Your task to perform on an android device: Add razer naga to the cart on ebay Image 0: 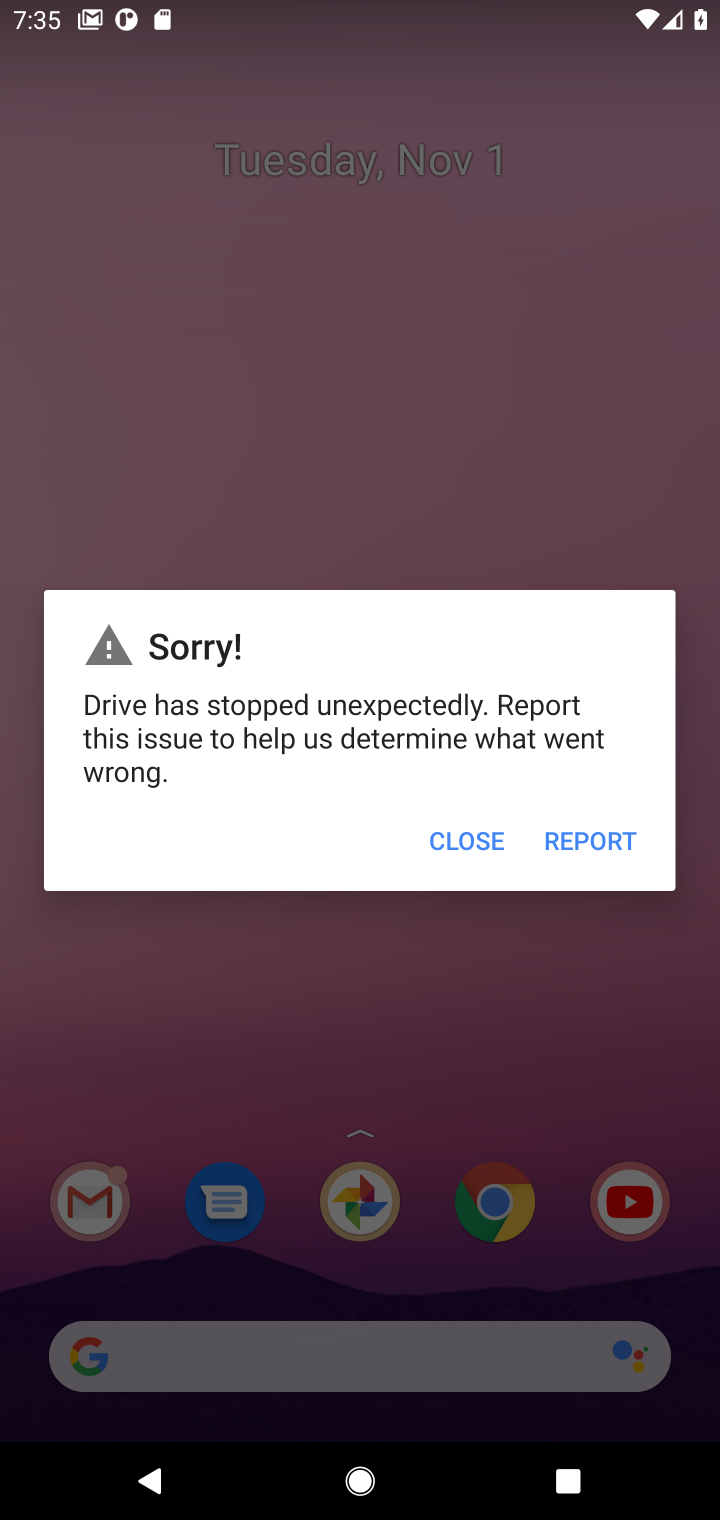
Step 0: click (474, 826)
Your task to perform on an android device: Add razer naga to the cart on ebay Image 1: 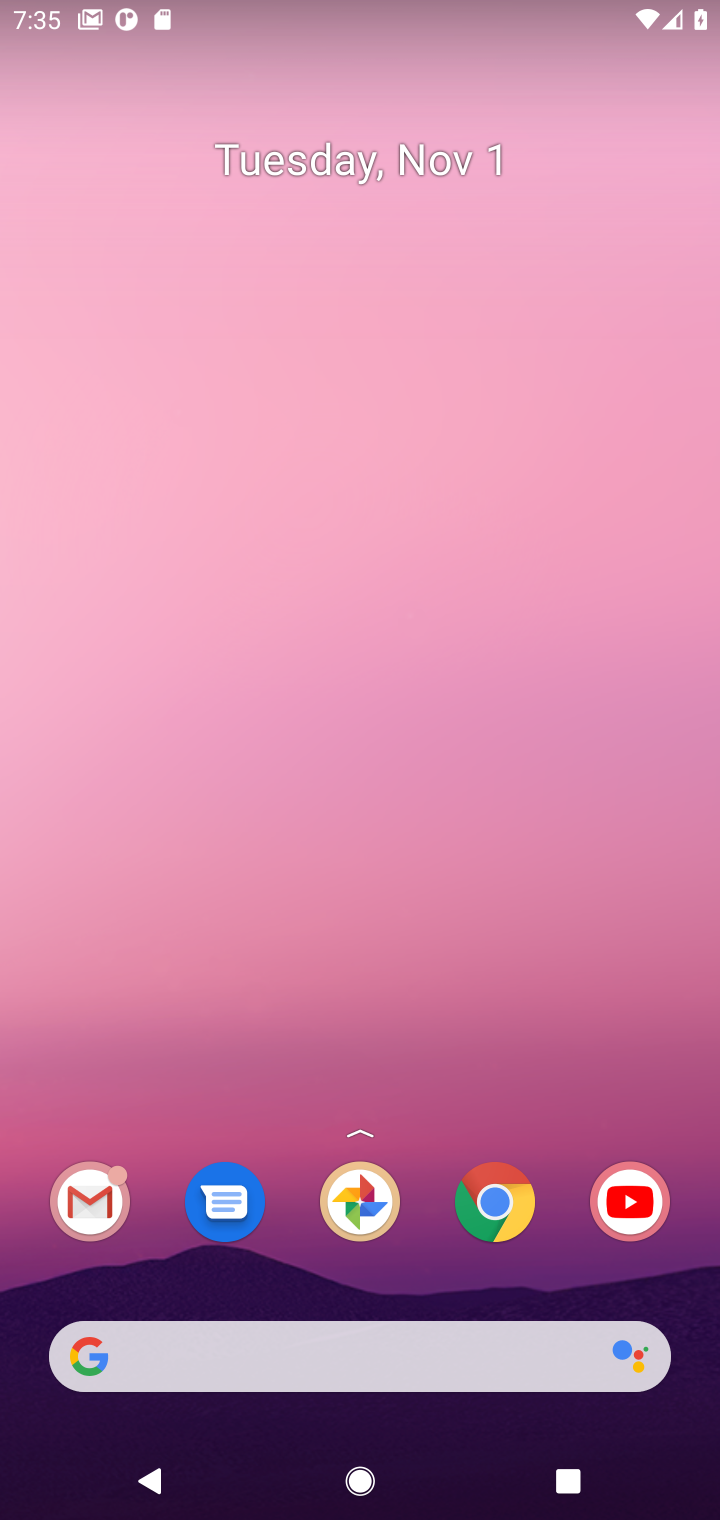
Step 1: drag from (461, 1435) to (391, 157)
Your task to perform on an android device: Add razer naga to the cart on ebay Image 2: 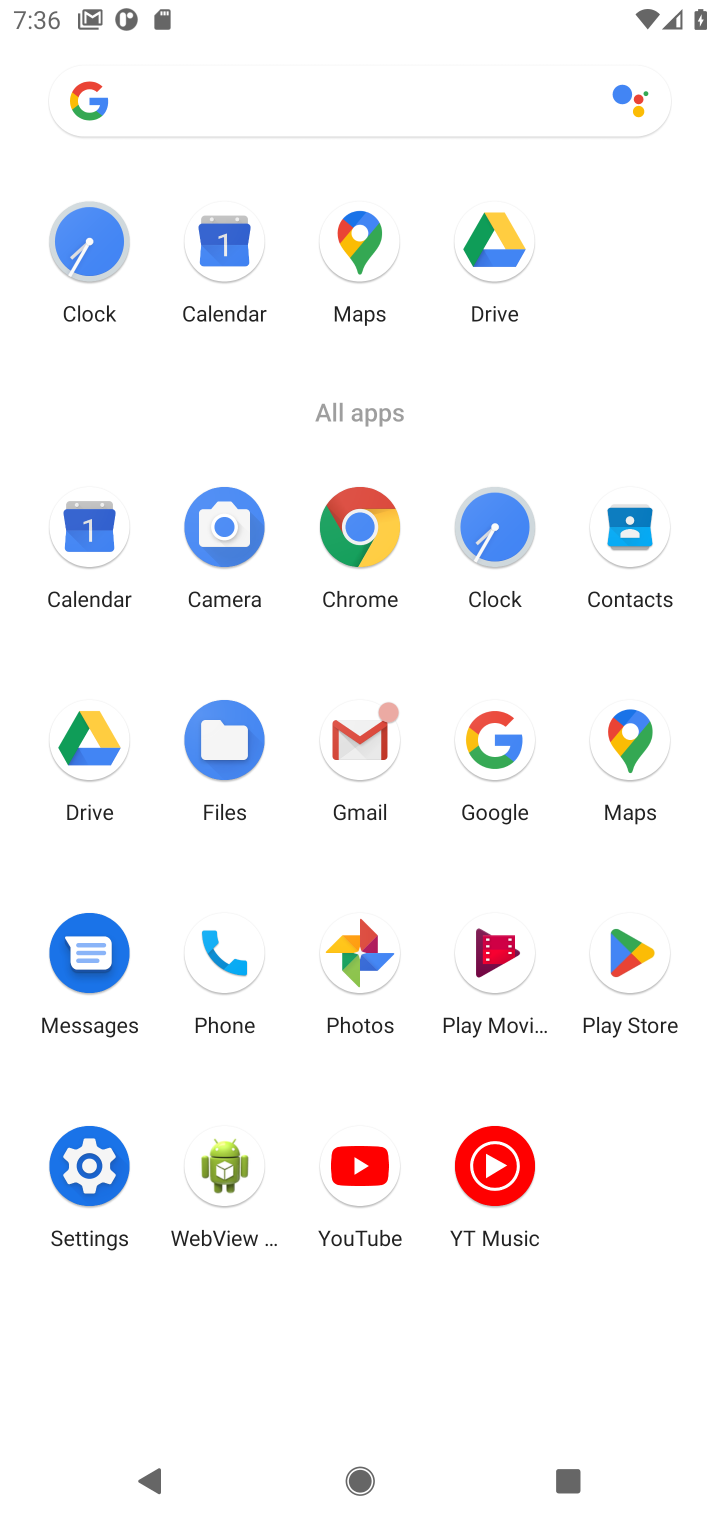
Step 2: click (360, 535)
Your task to perform on an android device: Add razer naga to the cart on ebay Image 3: 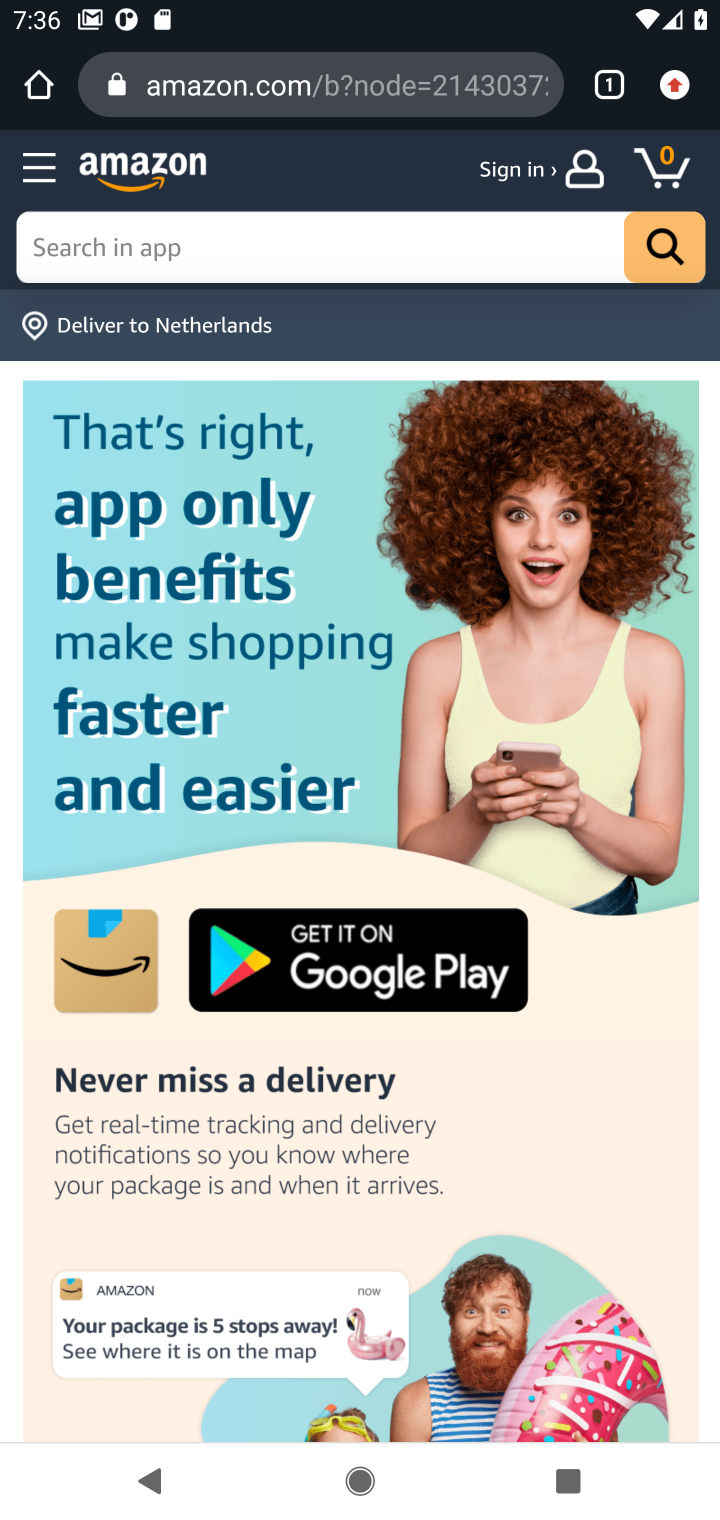
Step 3: click (305, 77)
Your task to perform on an android device: Add razer naga to the cart on ebay Image 4: 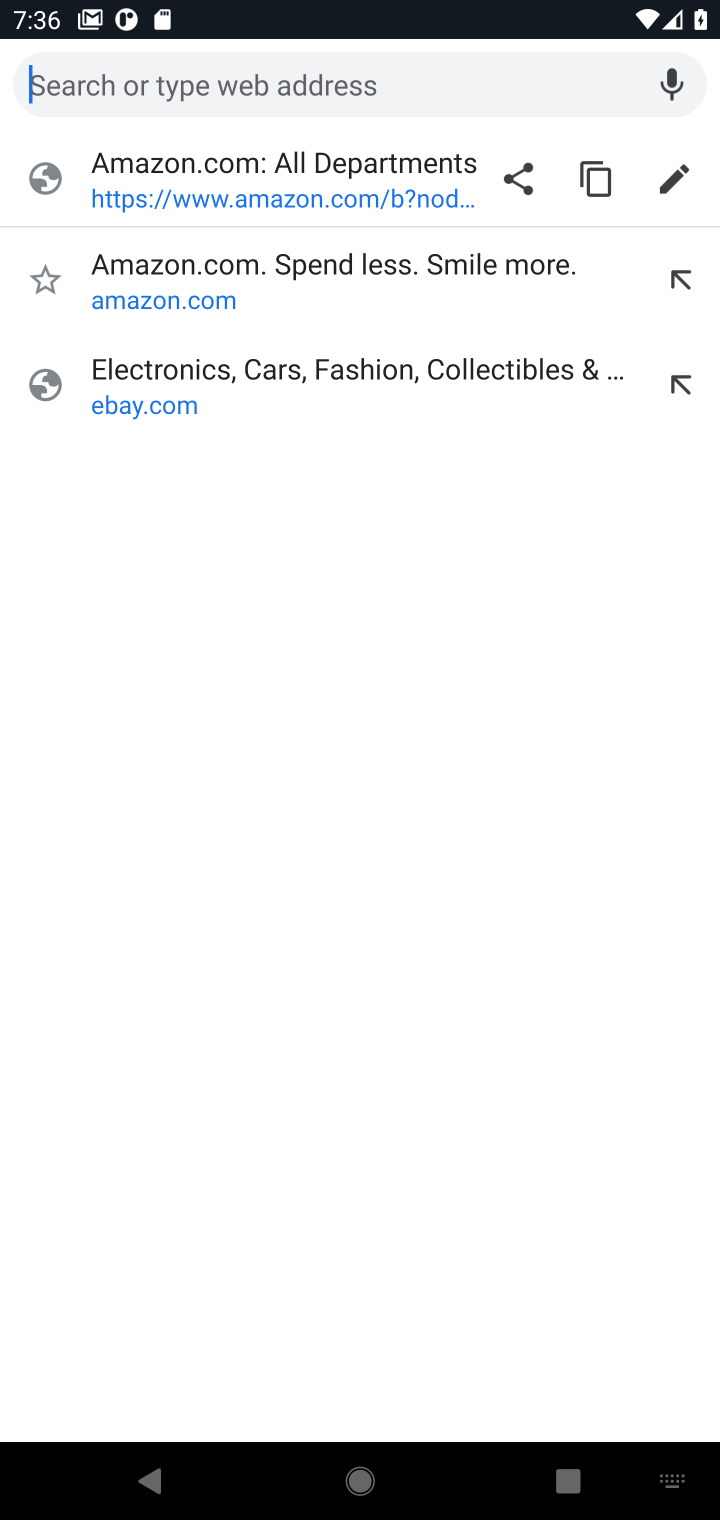
Step 4: type "ebay"
Your task to perform on an android device: Add razer naga to the cart on ebay Image 5: 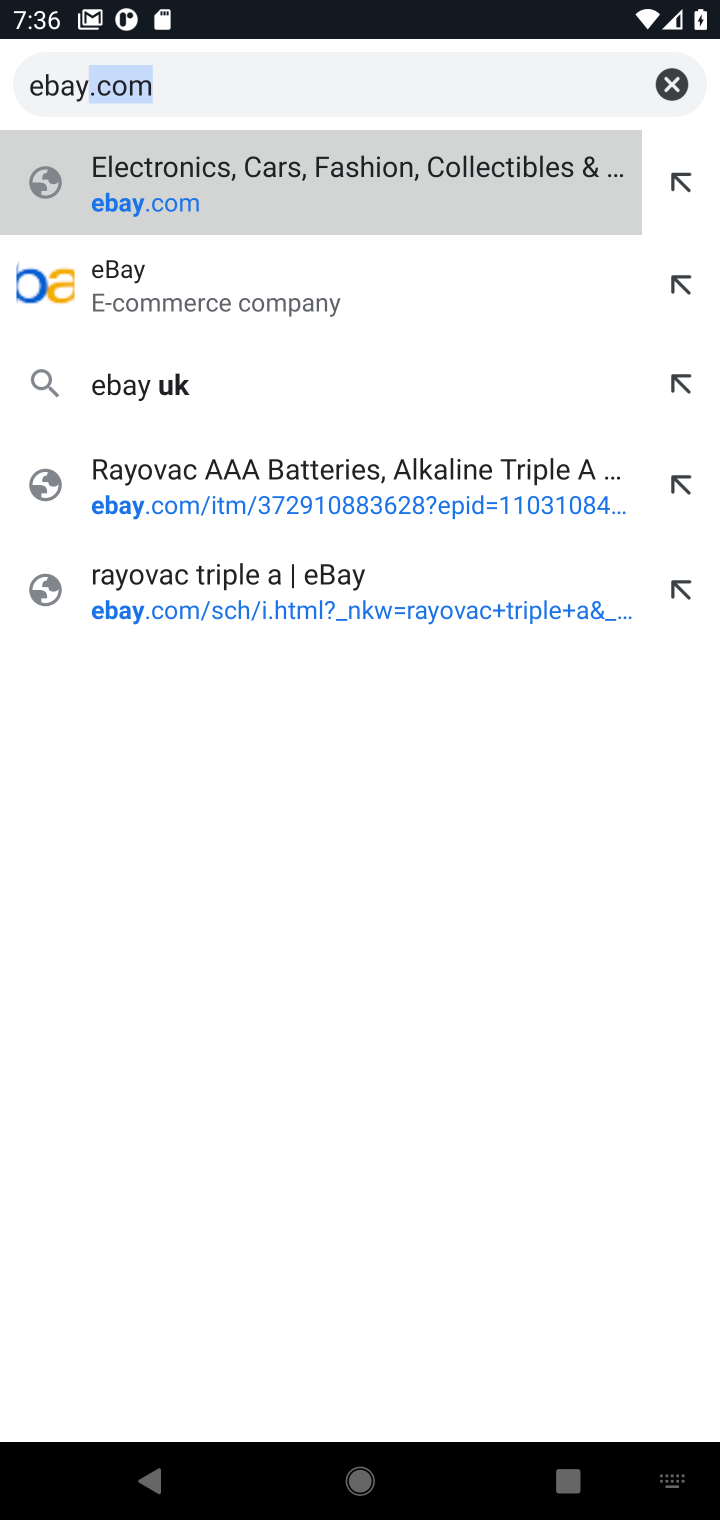
Step 5: click (170, 195)
Your task to perform on an android device: Add razer naga to the cart on ebay Image 6: 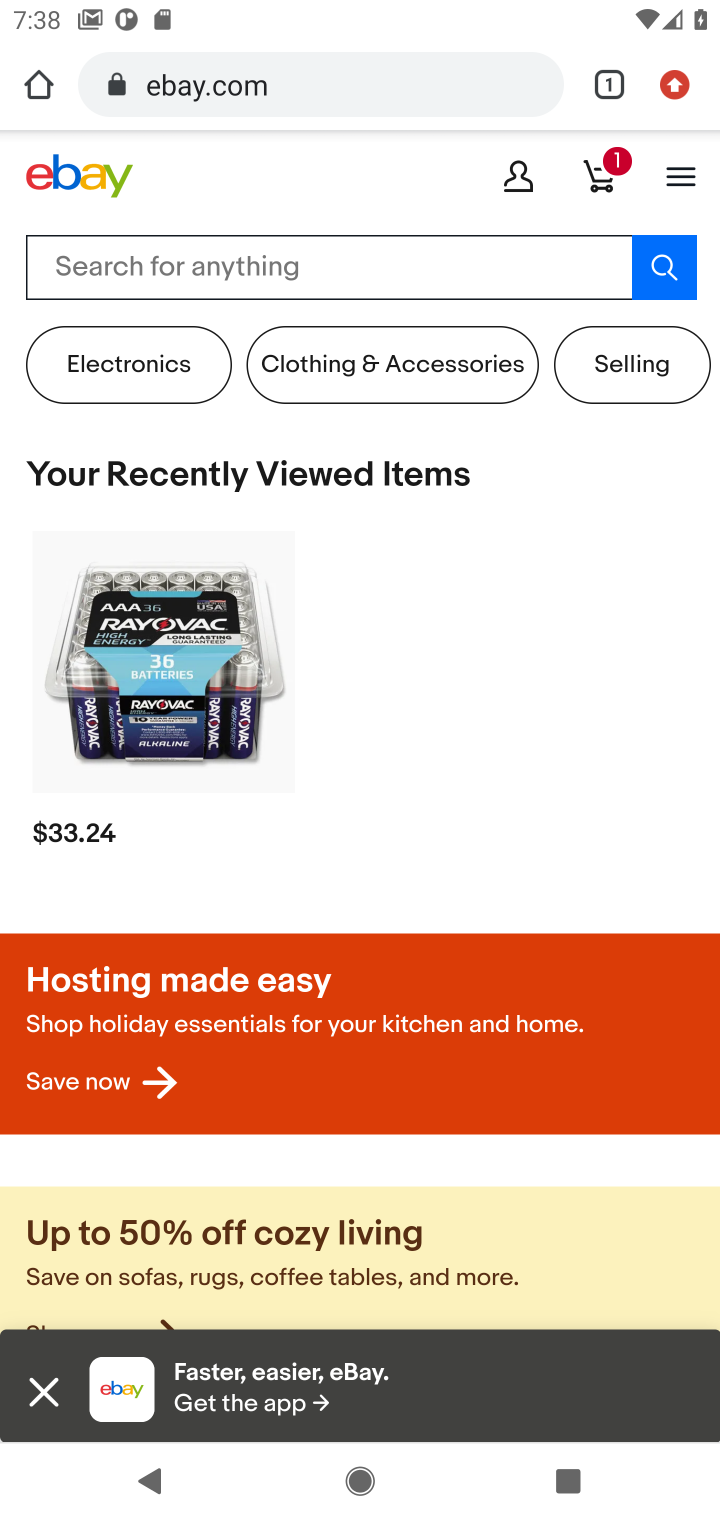
Step 6: click (333, 261)
Your task to perform on an android device: Add razer naga to the cart on ebay Image 7: 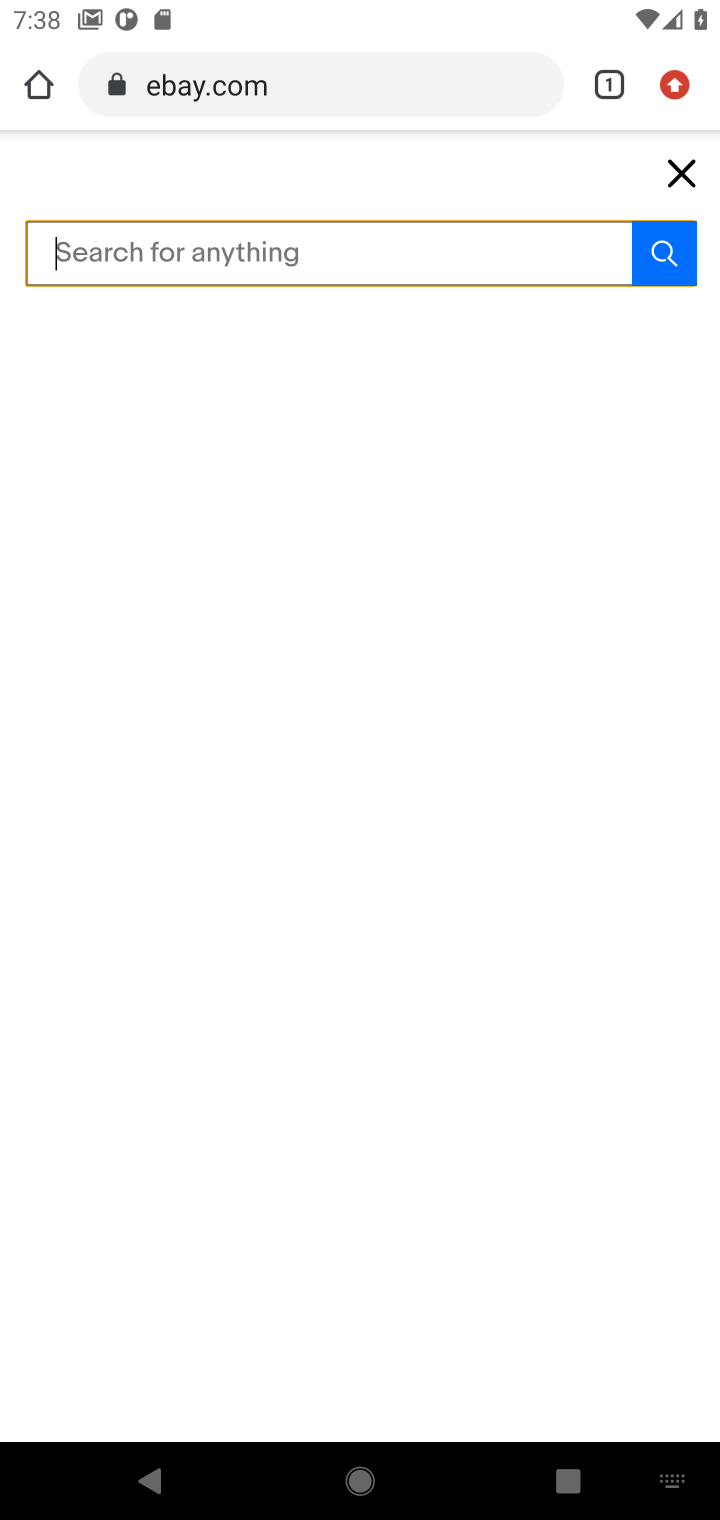
Step 7: type " razer naga"
Your task to perform on an android device: Add razer naga to the cart on ebay Image 8: 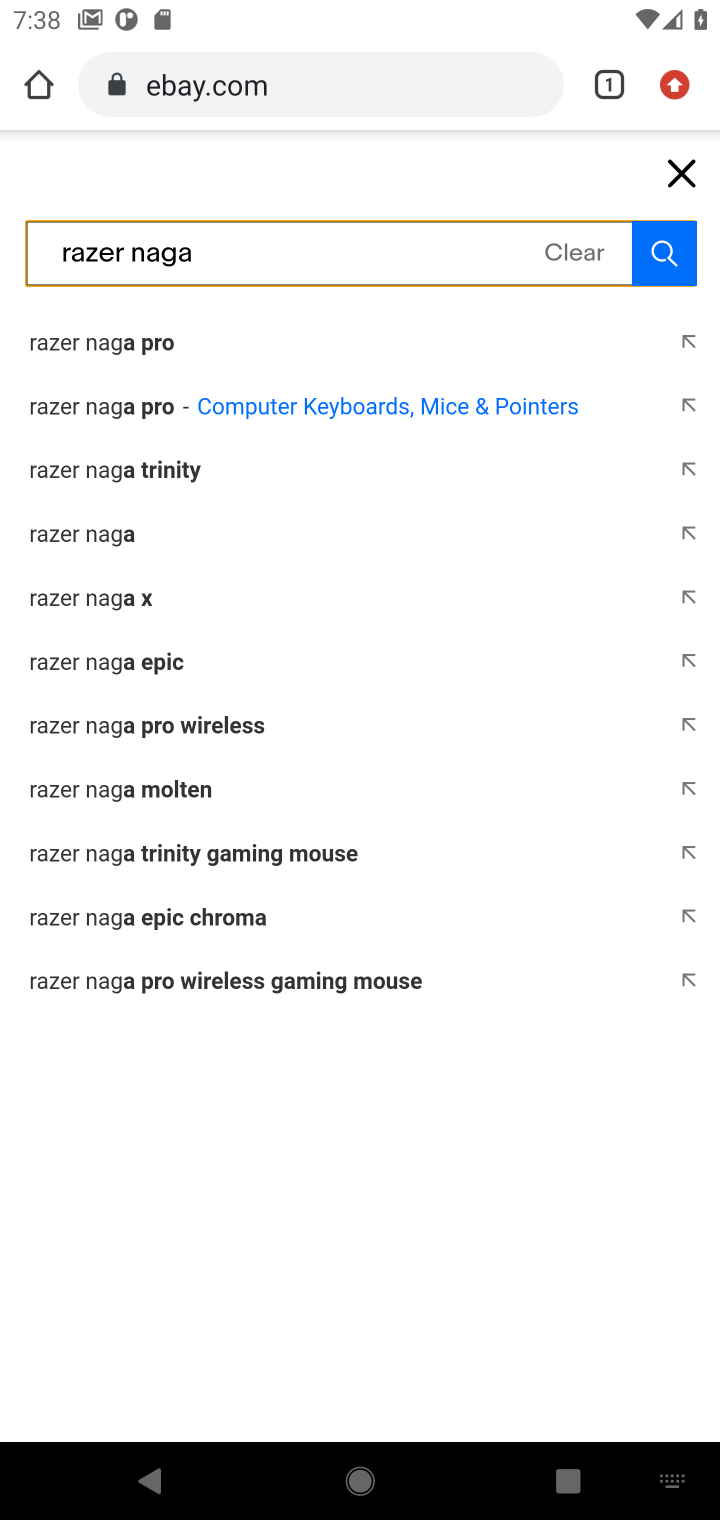
Step 8: click (674, 248)
Your task to perform on an android device: Add razer naga to the cart on ebay Image 9: 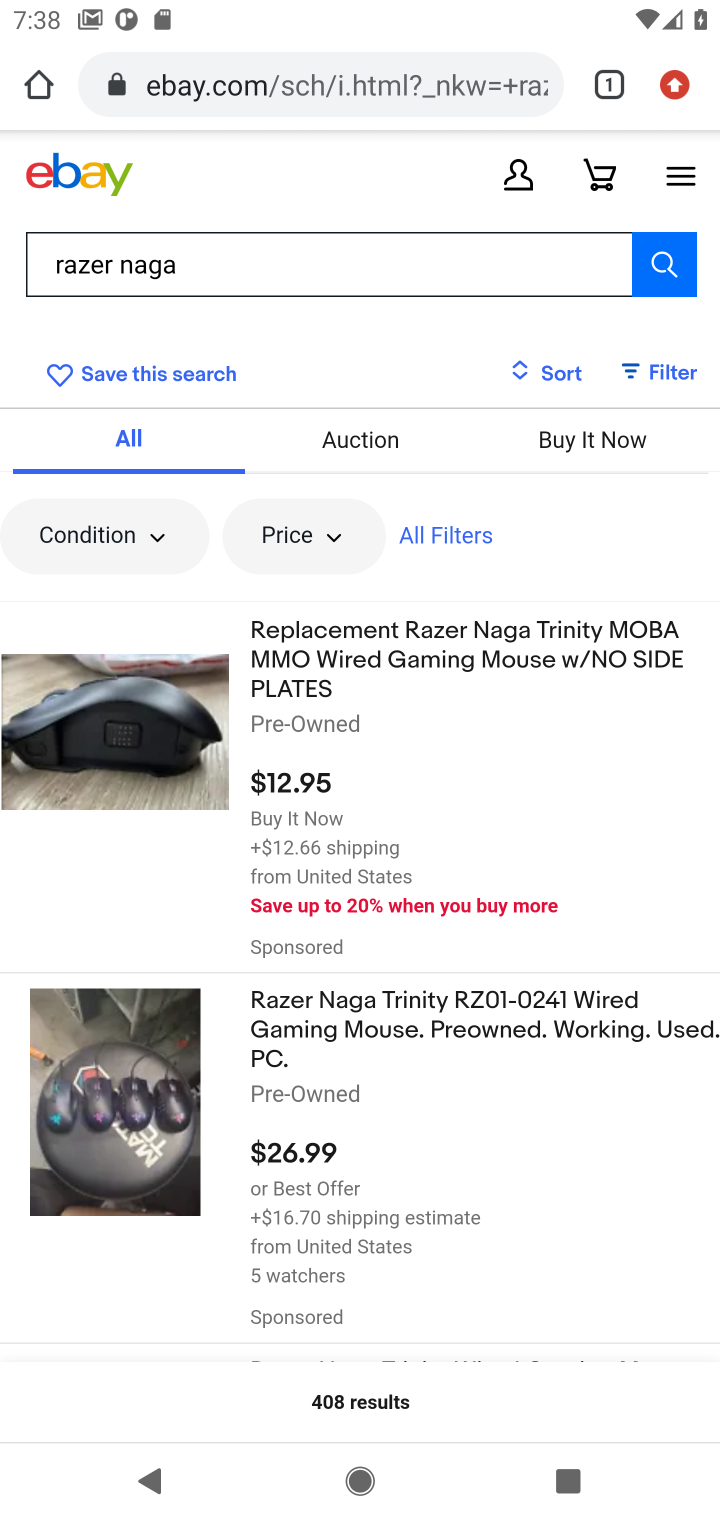
Step 9: click (91, 657)
Your task to perform on an android device: Add razer naga to the cart on ebay Image 10: 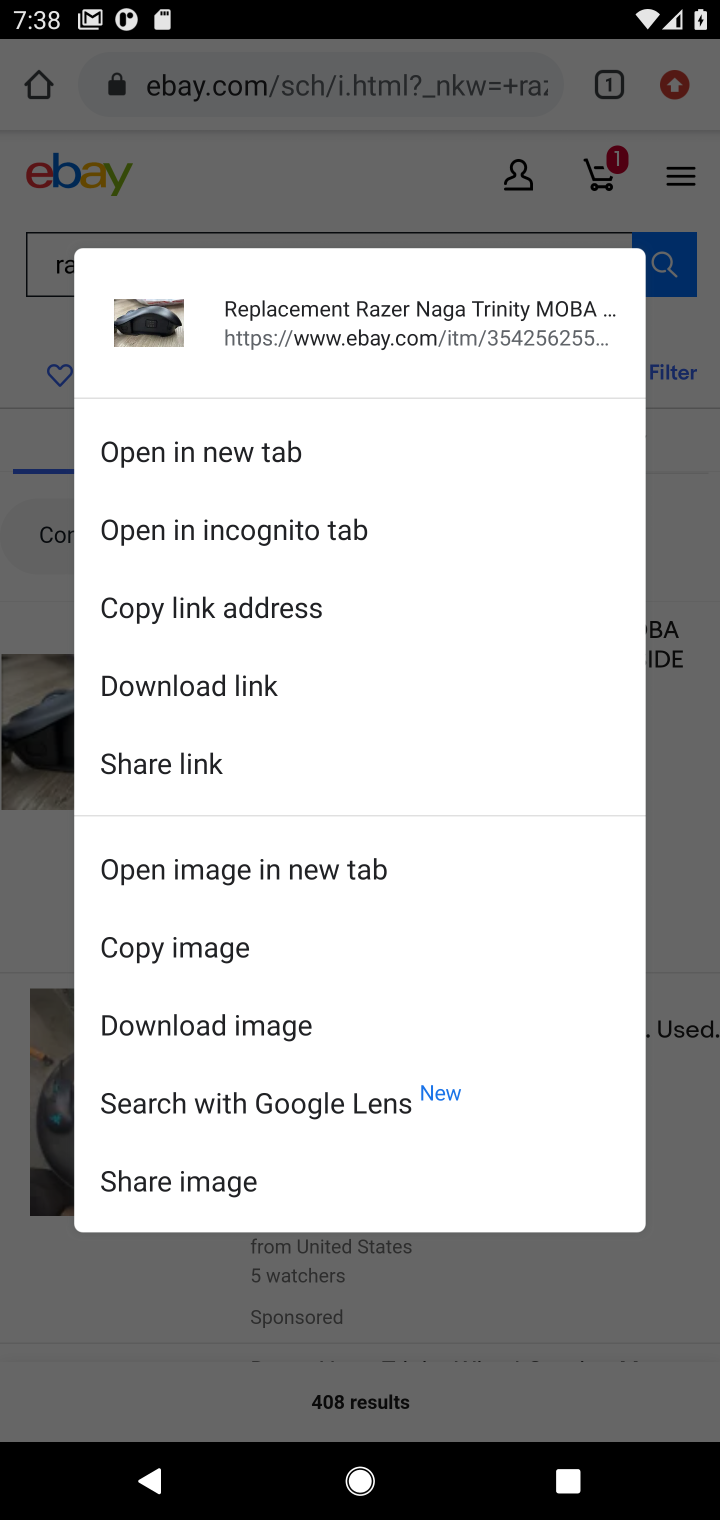
Step 10: click (676, 444)
Your task to perform on an android device: Add razer naga to the cart on ebay Image 11: 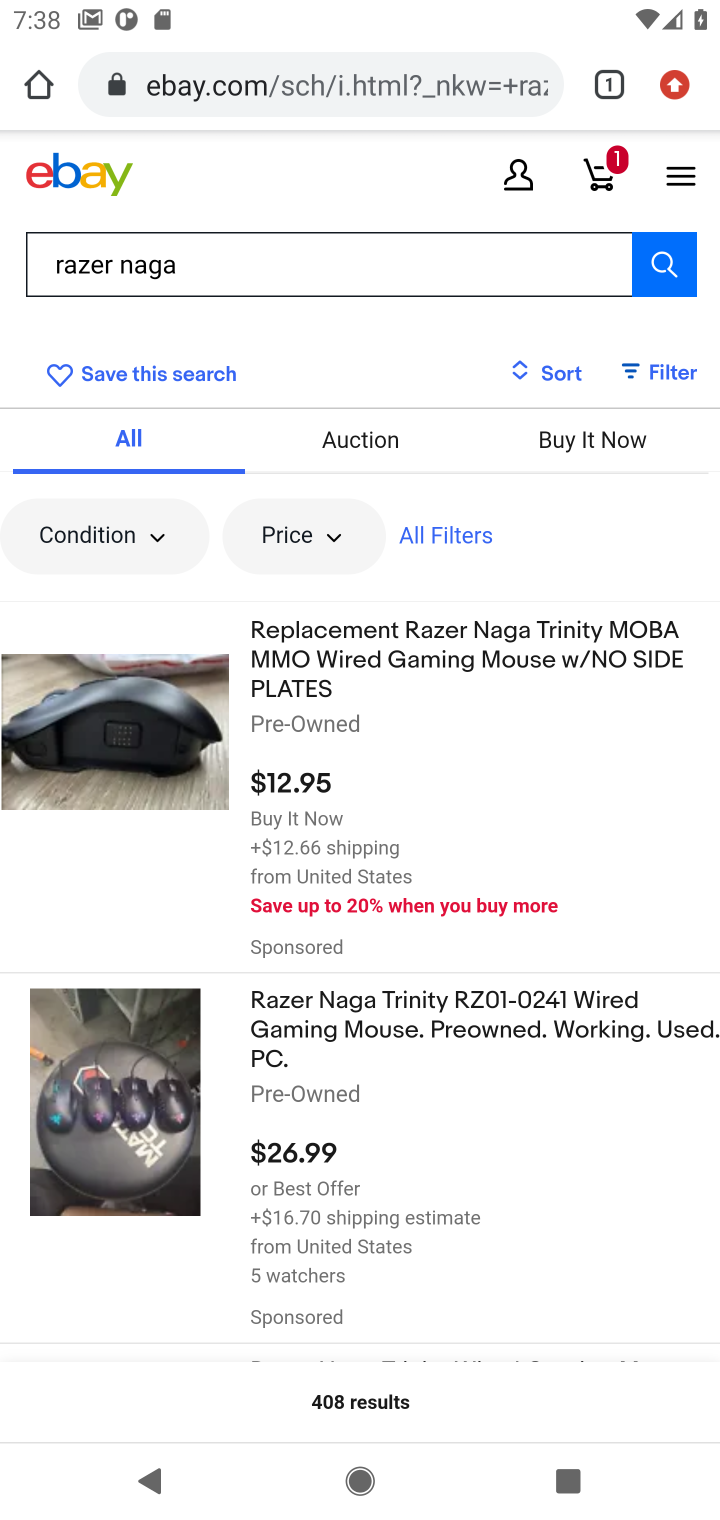
Step 11: click (304, 699)
Your task to perform on an android device: Add razer naga to the cart on ebay Image 12: 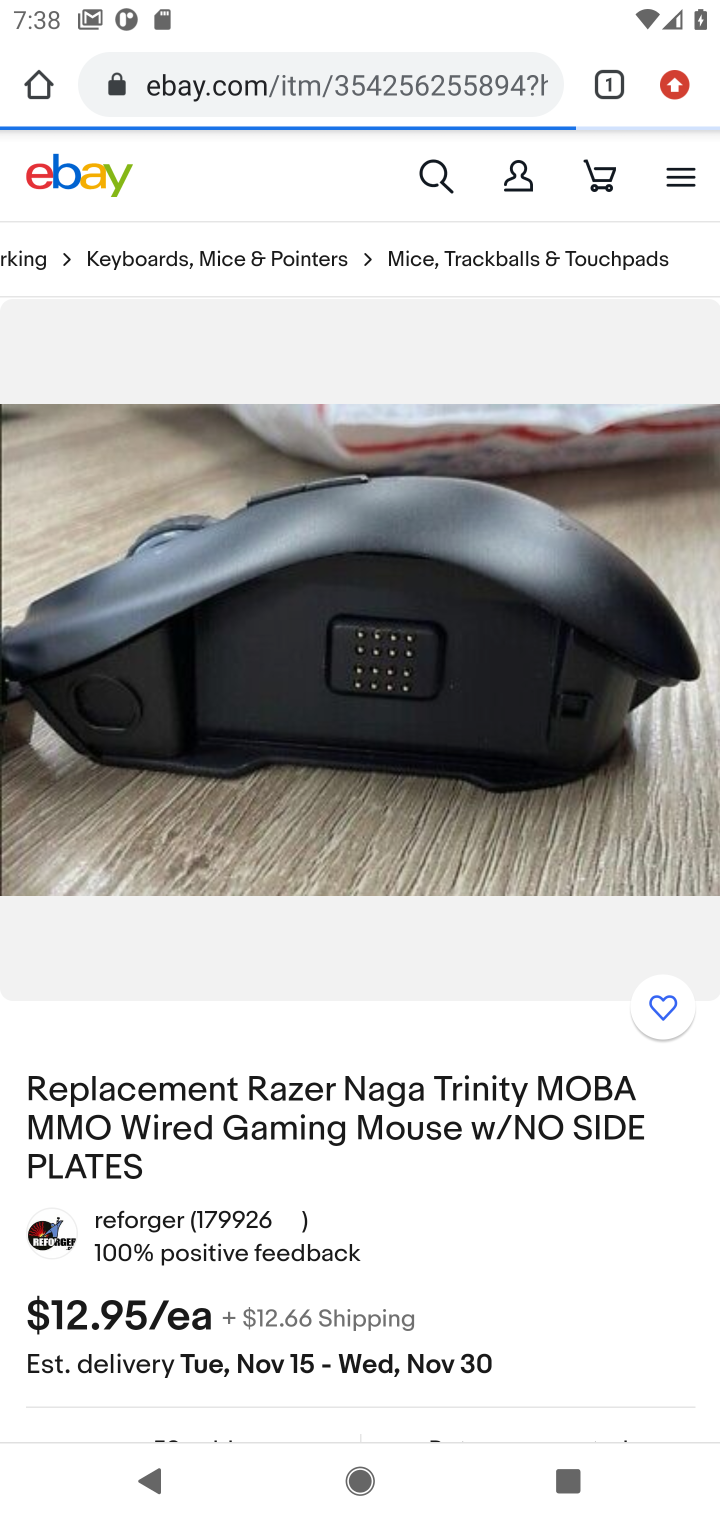
Step 12: drag from (308, 1189) to (405, 380)
Your task to perform on an android device: Add razer naga to the cart on ebay Image 13: 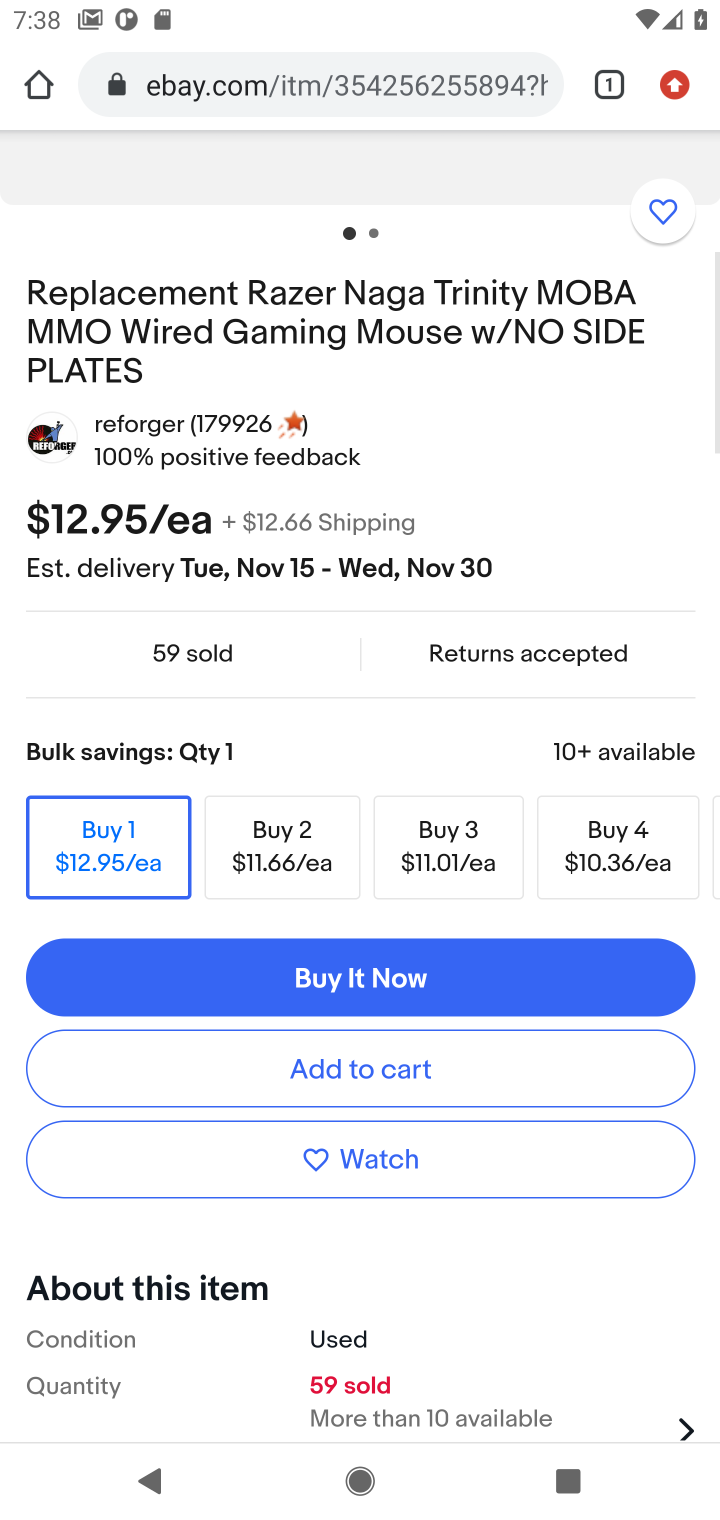
Step 13: drag from (346, 1219) to (370, 563)
Your task to perform on an android device: Add razer naga to the cart on ebay Image 14: 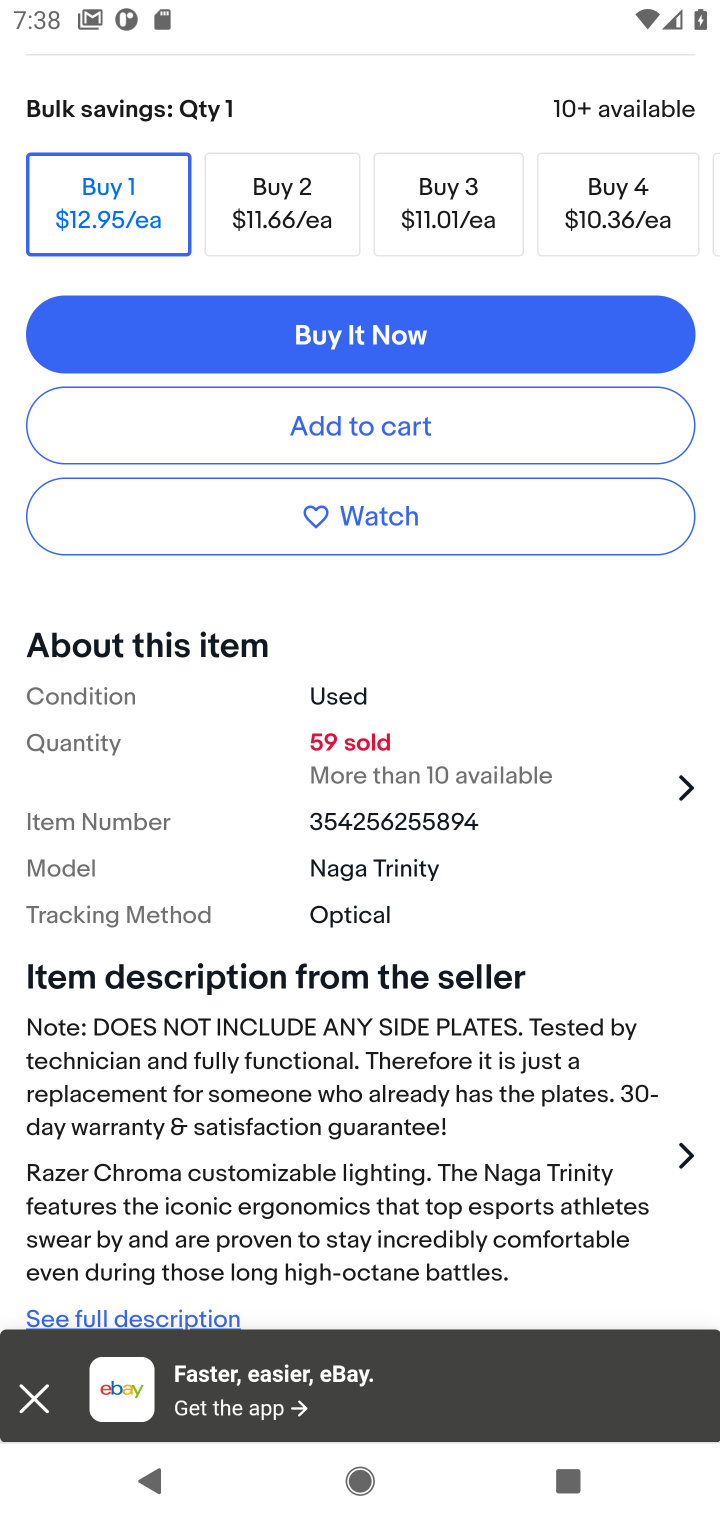
Step 14: click (353, 412)
Your task to perform on an android device: Add razer naga to the cart on ebay Image 15: 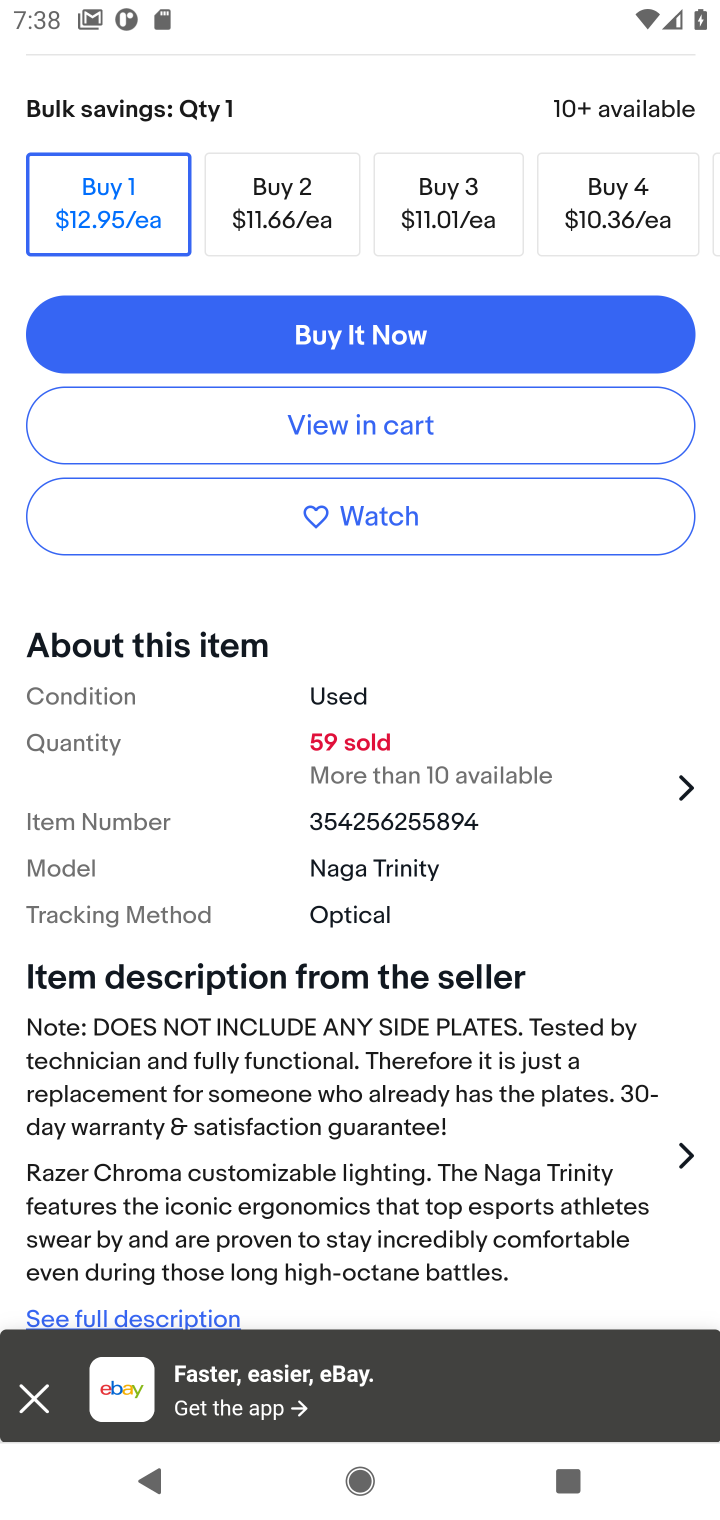
Step 15: task complete